Your task to perform on an android device: change keyboard looks Image 0: 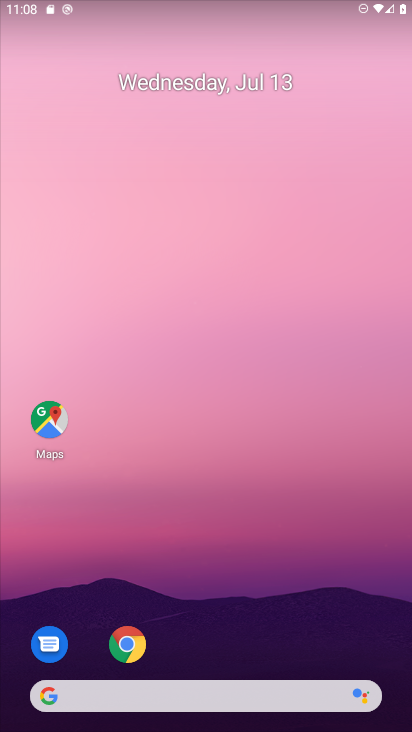
Step 0: drag from (224, 559) to (176, 0)
Your task to perform on an android device: change keyboard looks Image 1: 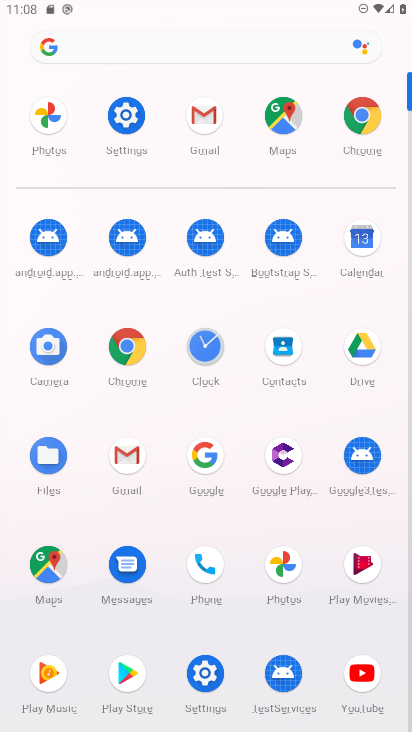
Step 1: click (127, 116)
Your task to perform on an android device: change keyboard looks Image 2: 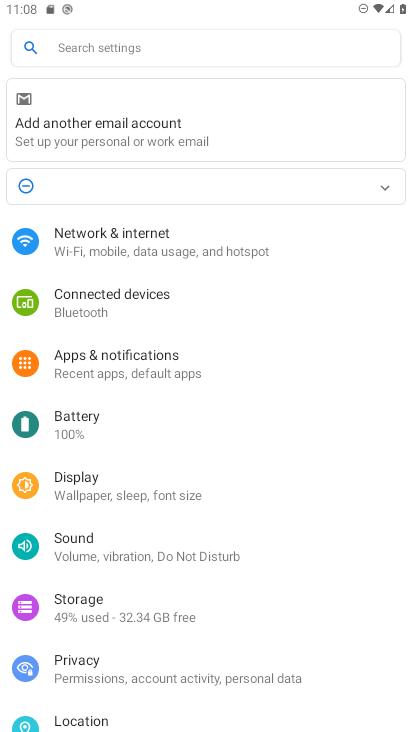
Step 2: drag from (246, 645) to (180, 239)
Your task to perform on an android device: change keyboard looks Image 3: 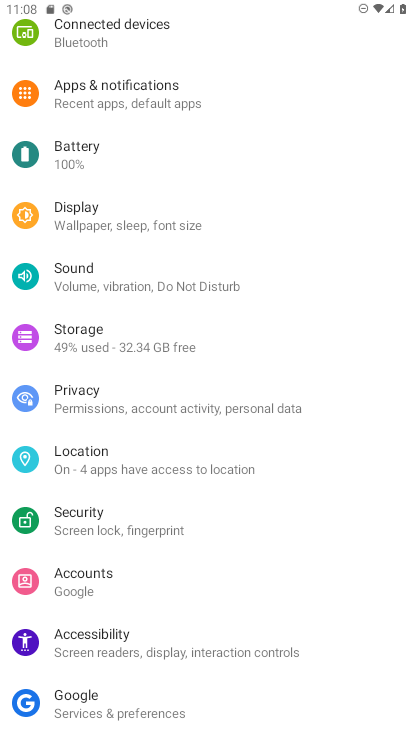
Step 3: drag from (253, 588) to (224, 154)
Your task to perform on an android device: change keyboard looks Image 4: 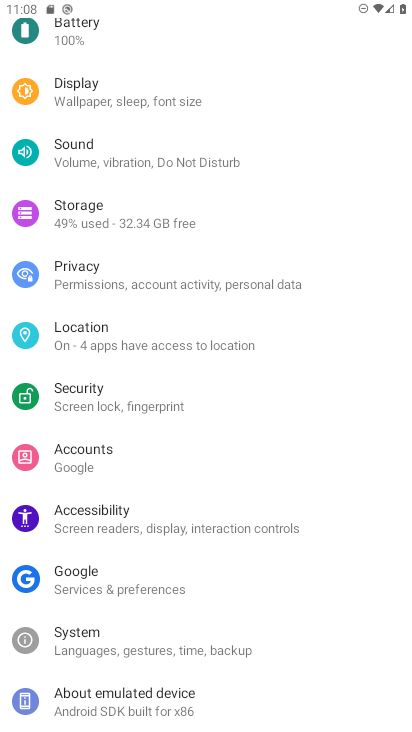
Step 4: click (77, 633)
Your task to perform on an android device: change keyboard looks Image 5: 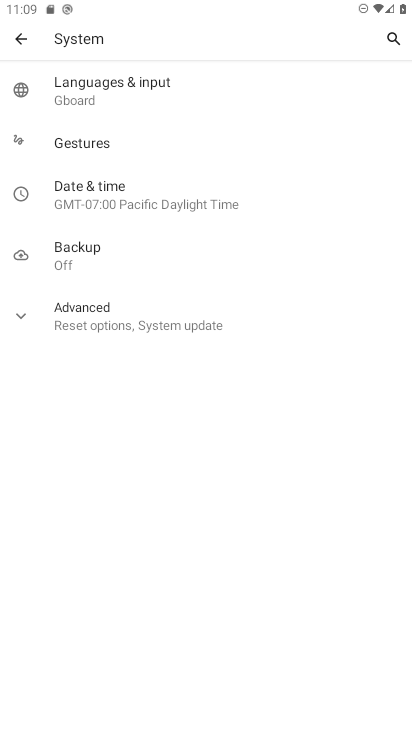
Step 5: click (79, 86)
Your task to perform on an android device: change keyboard looks Image 6: 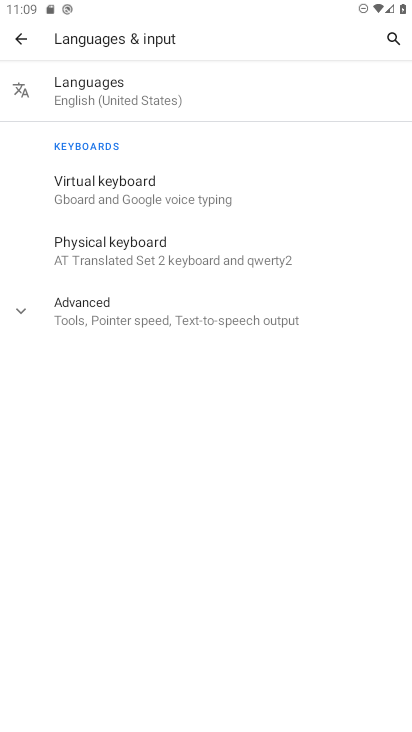
Step 6: click (109, 178)
Your task to perform on an android device: change keyboard looks Image 7: 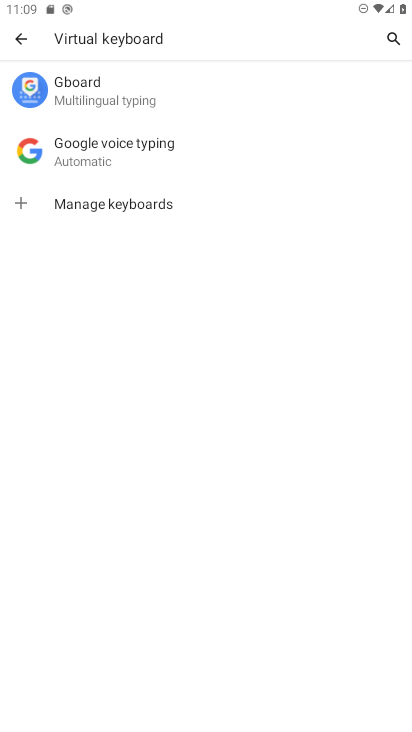
Step 7: click (68, 84)
Your task to perform on an android device: change keyboard looks Image 8: 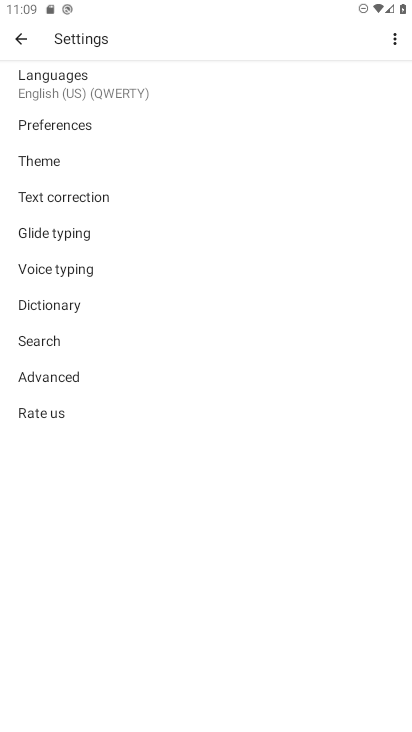
Step 8: click (41, 158)
Your task to perform on an android device: change keyboard looks Image 9: 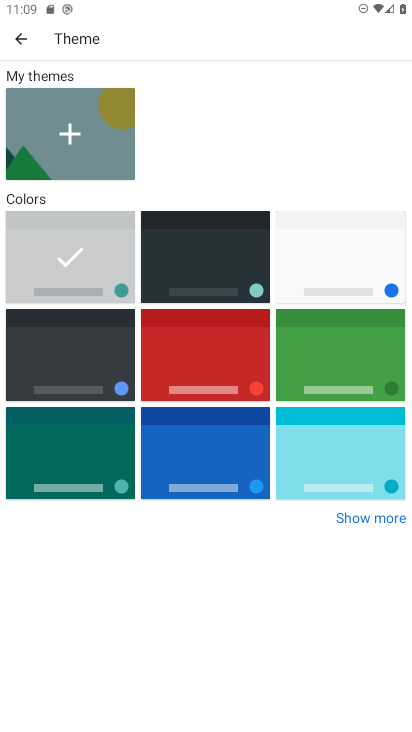
Step 9: click (212, 268)
Your task to perform on an android device: change keyboard looks Image 10: 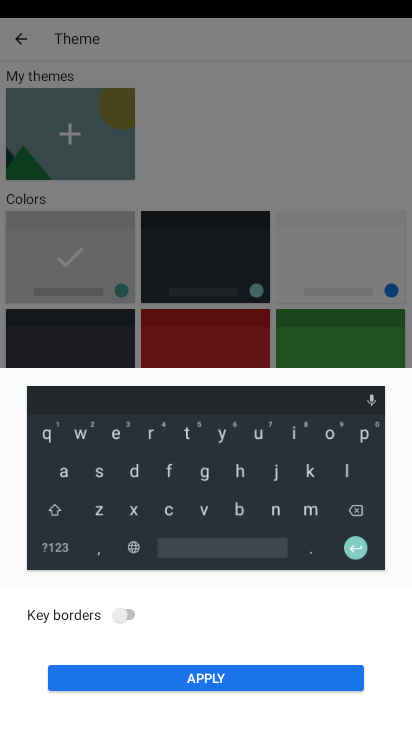
Step 10: click (221, 678)
Your task to perform on an android device: change keyboard looks Image 11: 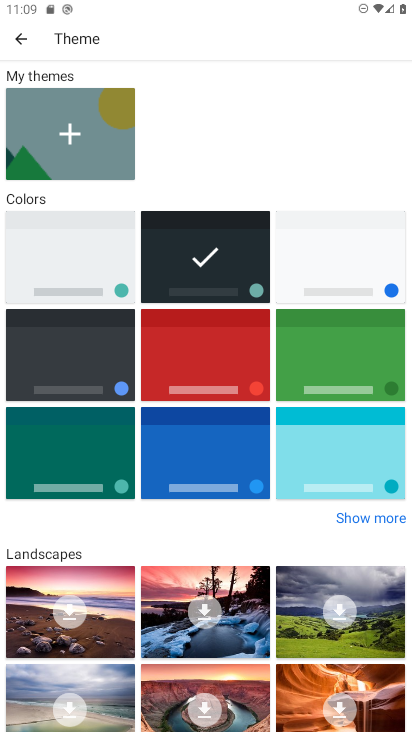
Step 11: task complete